Your task to perform on an android device: turn smart compose on in the gmail app Image 0: 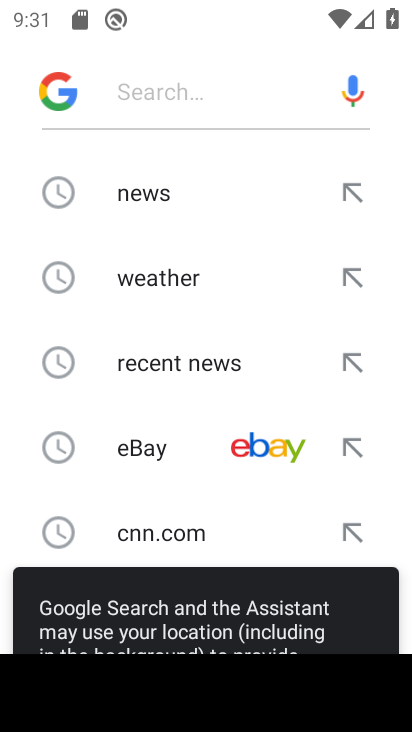
Step 0: press home button
Your task to perform on an android device: turn smart compose on in the gmail app Image 1: 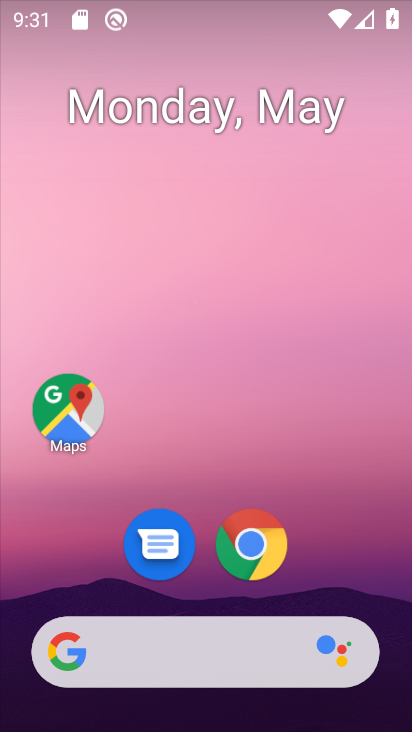
Step 1: drag from (352, 548) to (306, 96)
Your task to perform on an android device: turn smart compose on in the gmail app Image 2: 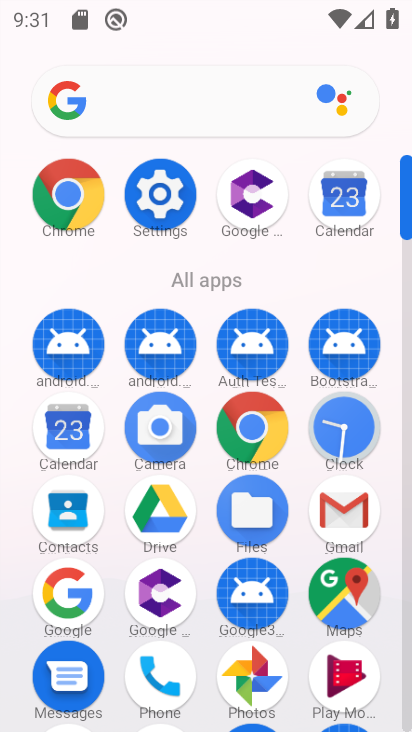
Step 2: click (347, 522)
Your task to perform on an android device: turn smart compose on in the gmail app Image 3: 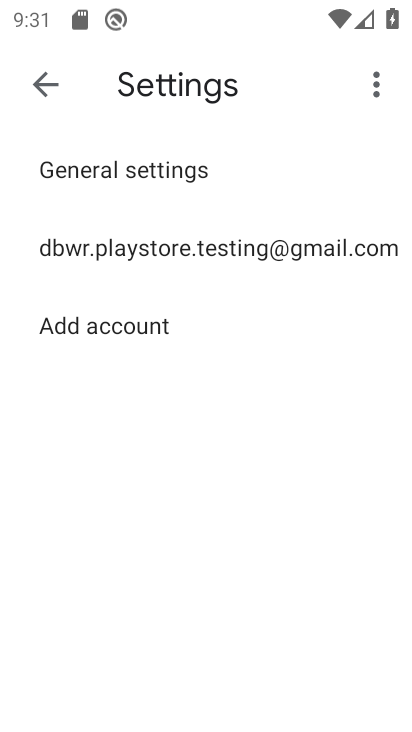
Step 3: click (198, 261)
Your task to perform on an android device: turn smart compose on in the gmail app Image 4: 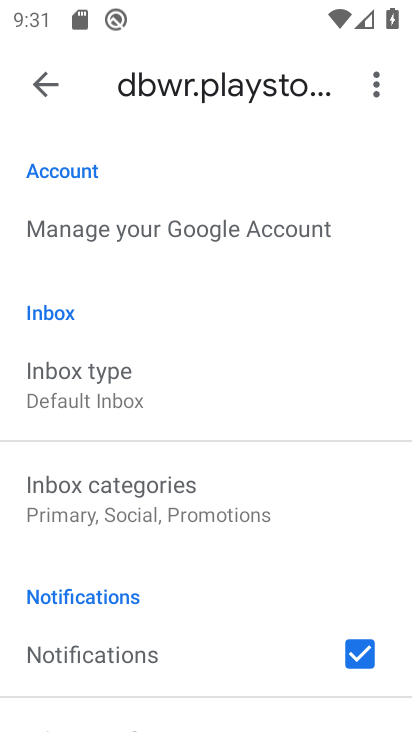
Step 4: task complete